Your task to perform on an android device: Go to eBay Image 0: 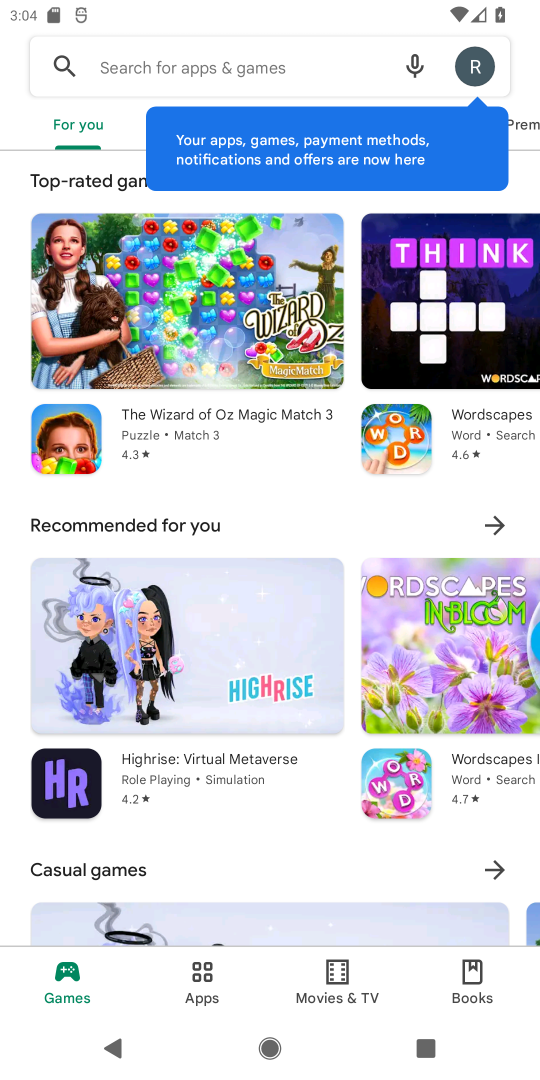
Step 0: click (126, 76)
Your task to perform on an android device: Go to eBay Image 1: 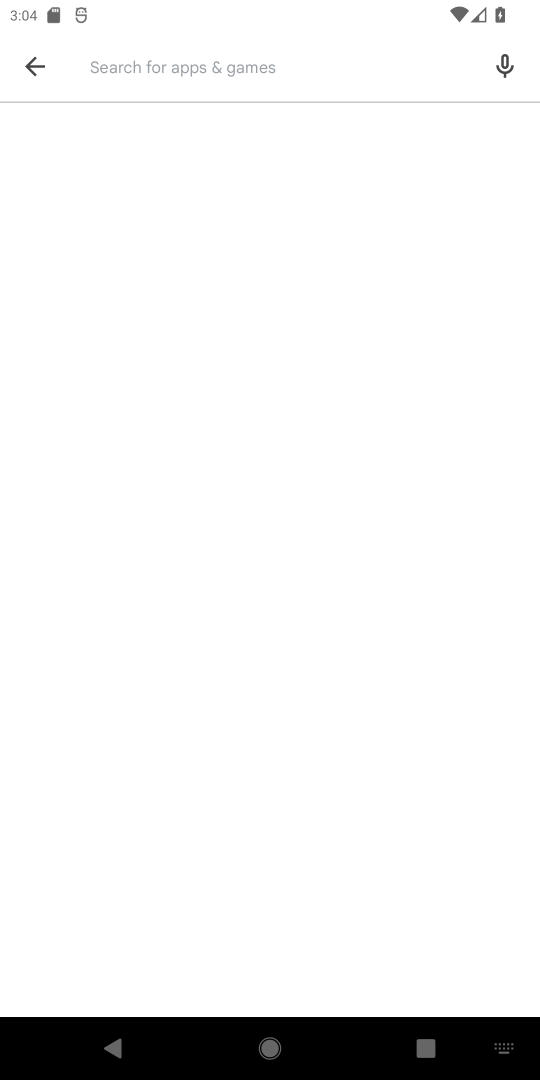
Step 1: press home button
Your task to perform on an android device: Go to eBay Image 2: 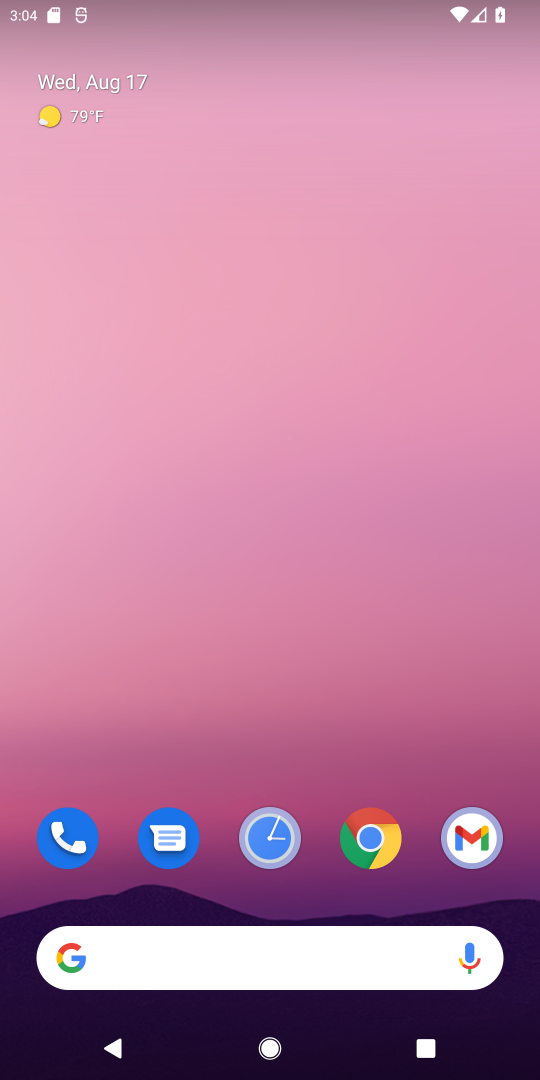
Step 2: drag from (244, 821) to (252, 418)
Your task to perform on an android device: Go to eBay Image 3: 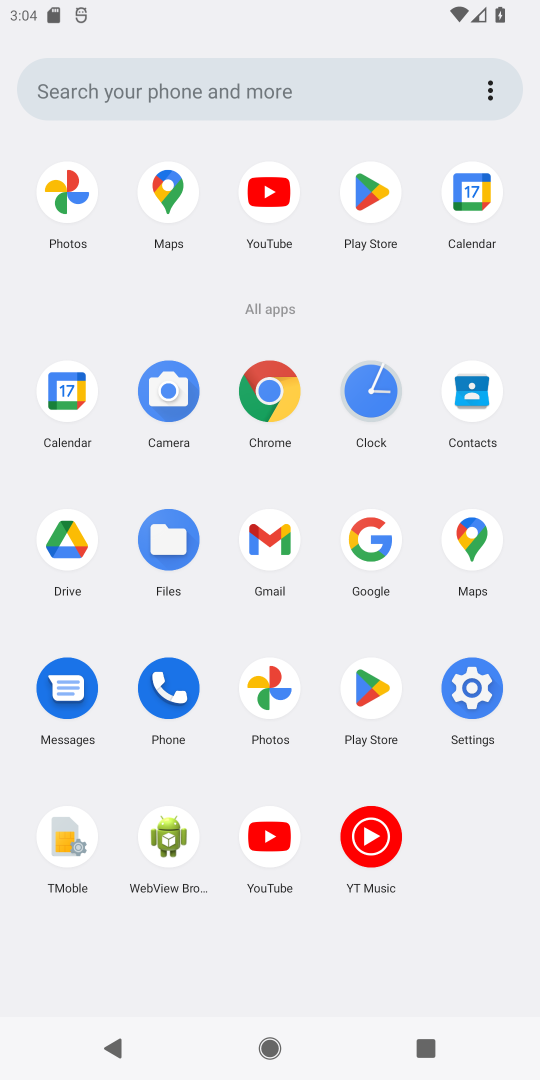
Step 3: click (381, 539)
Your task to perform on an android device: Go to eBay Image 4: 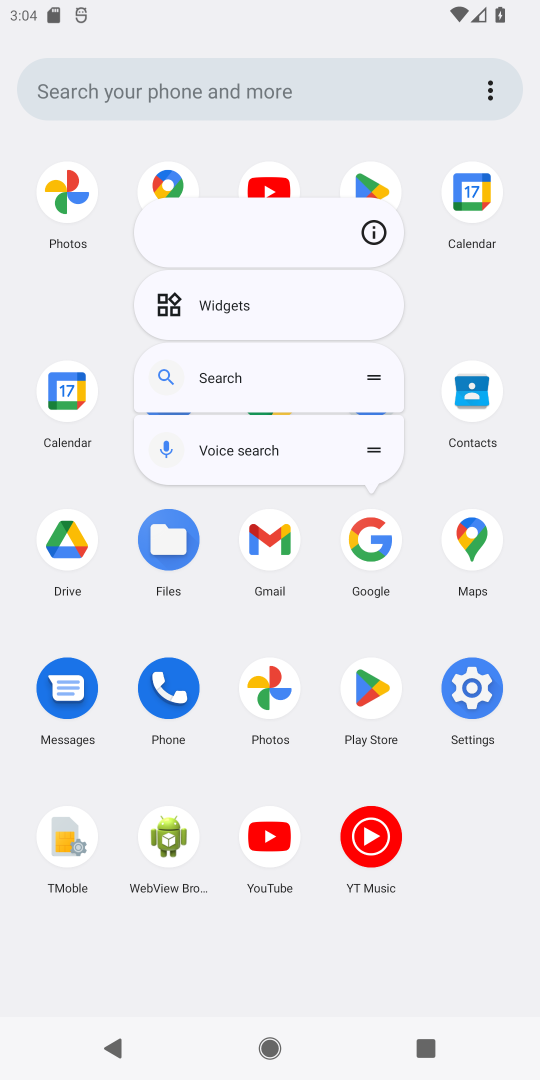
Step 4: click (374, 553)
Your task to perform on an android device: Go to eBay Image 5: 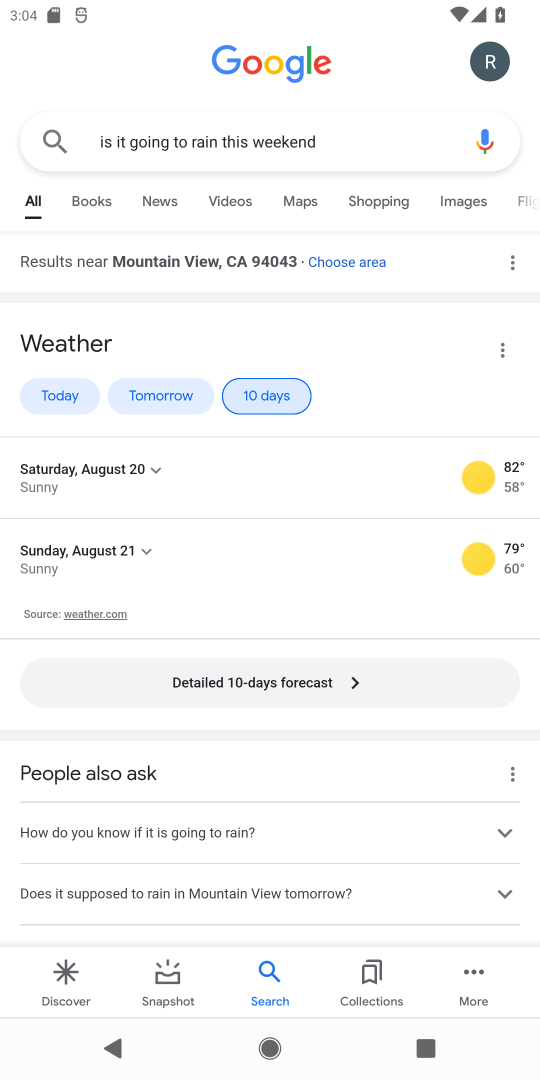
Step 5: click (145, 148)
Your task to perform on an android device: Go to eBay Image 6: 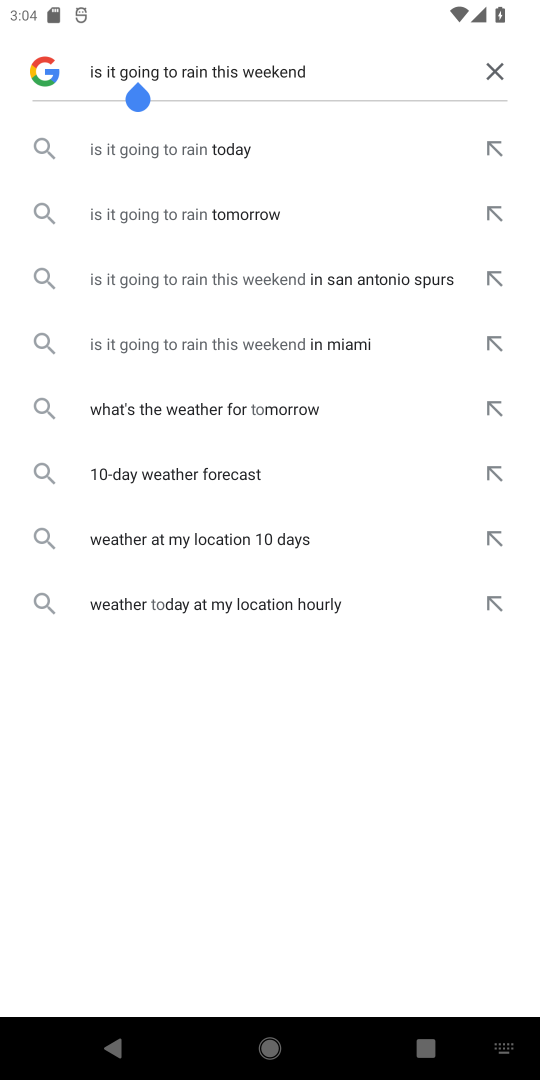
Step 6: click (484, 70)
Your task to perform on an android device: Go to eBay Image 7: 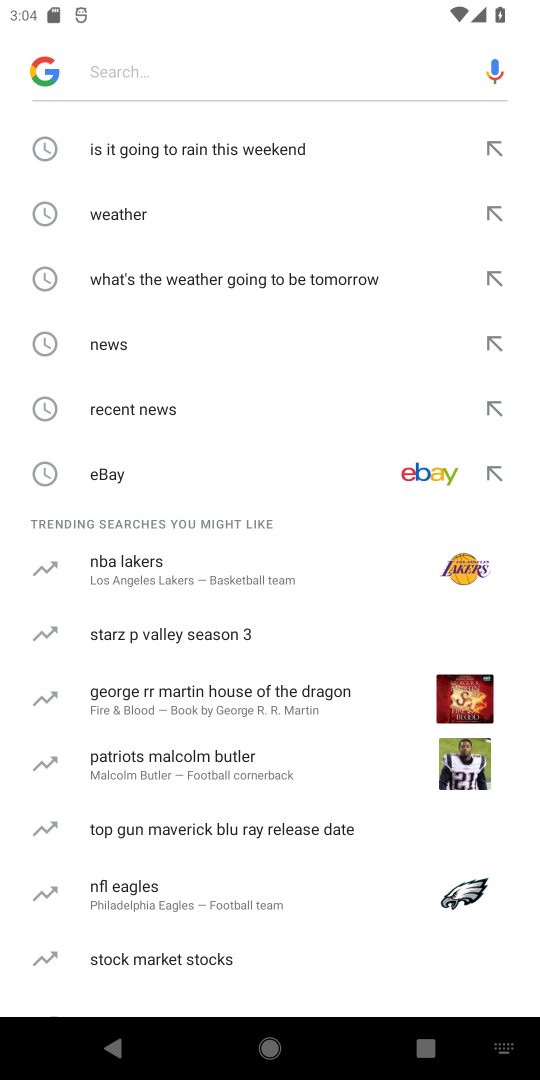
Step 7: click (162, 486)
Your task to perform on an android device: Go to eBay Image 8: 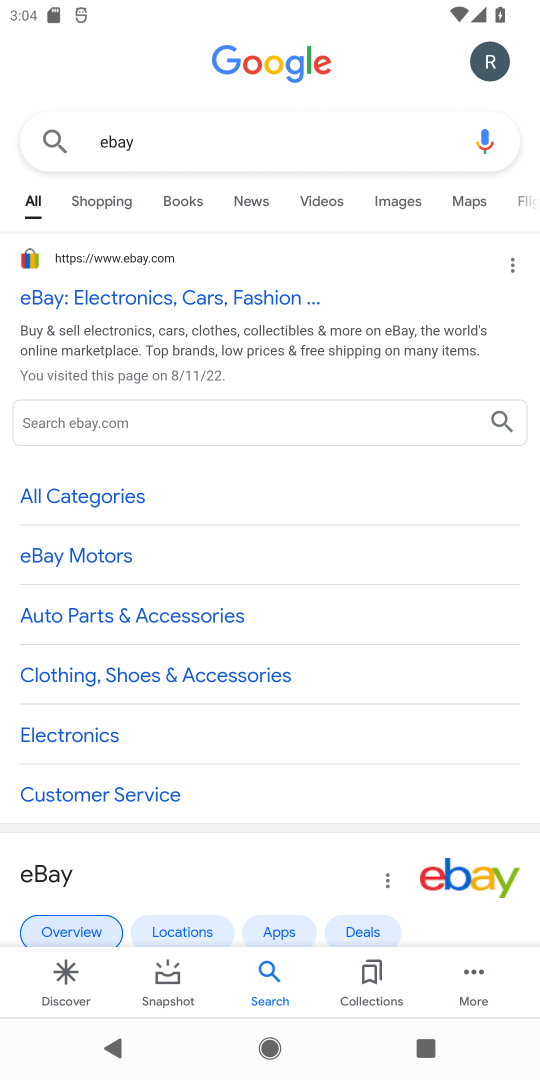
Step 8: click (197, 295)
Your task to perform on an android device: Go to eBay Image 9: 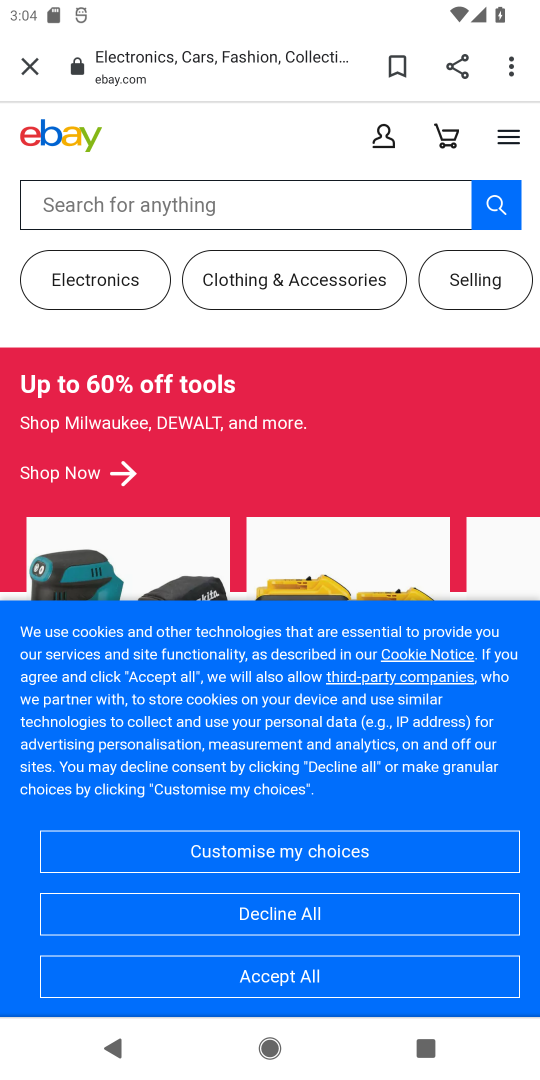
Step 9: task complete